Your task to perform on an android device: open a new tab in the chrome app Image 0: 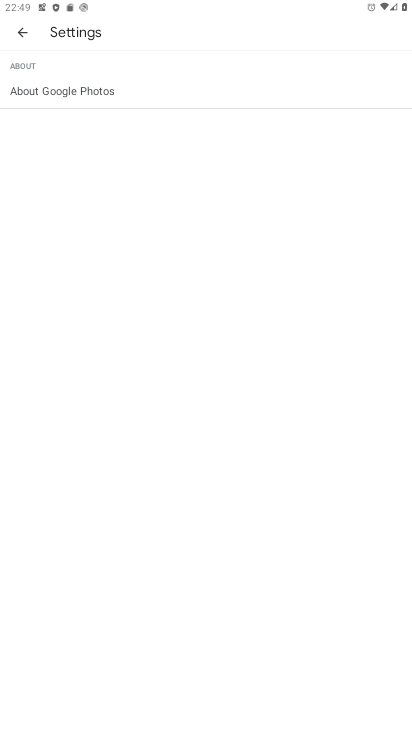
Step 0: press home button
Your task to perform on an android device: open a new tab in the chrome app Image 1: 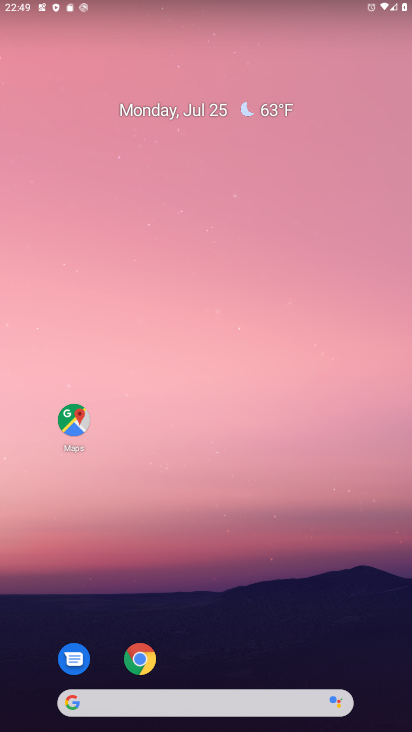
Step 1: drag from (221, 724) to (227, 113)
Your task to perform on an android device: open a new tab in the chrome app Image 2: 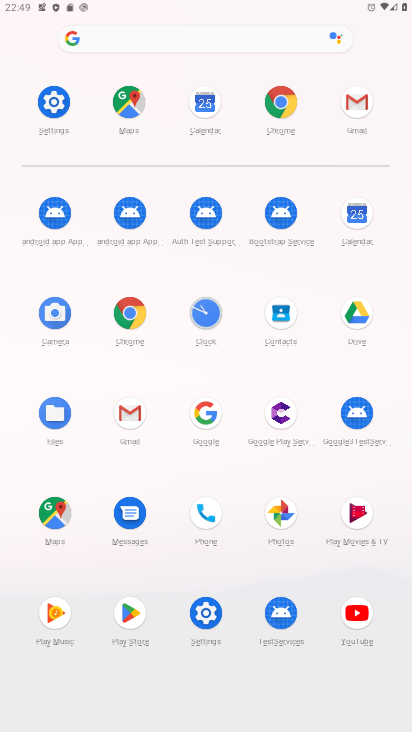
Step 2: click (131, 310)
Your task to perform on an android device: open a new tab in the chrome app Image 3: 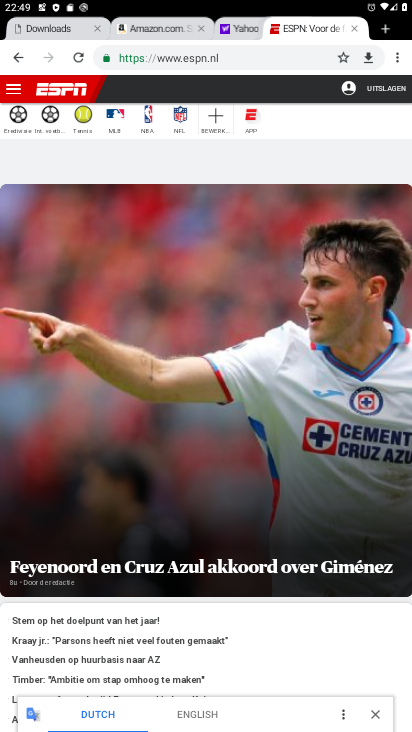
Step 3: click (397, 58)
Your task to perform on an android device: open a new tab in the chrome app Image 4: 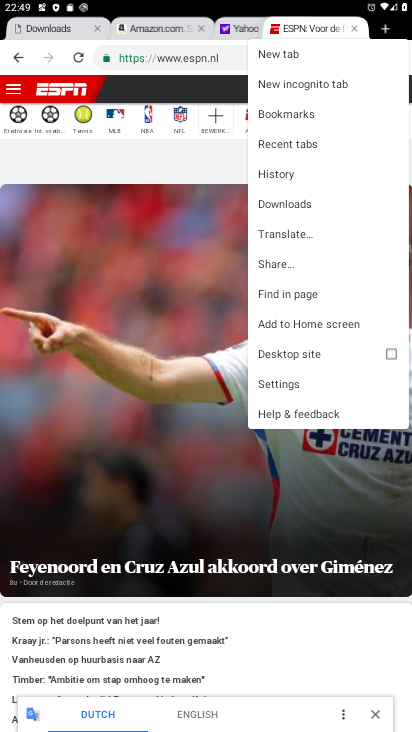
Step 4: click (276, 55)
Your task to perform on an android device: open a new tab in the chrome app Image 5: 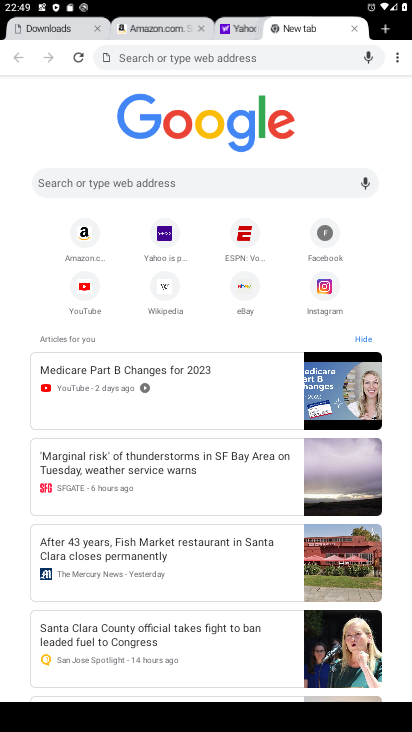
Step 5: click (396, 59)
Your task to perform on an android device: open a new tab in the chrome app Image 6: 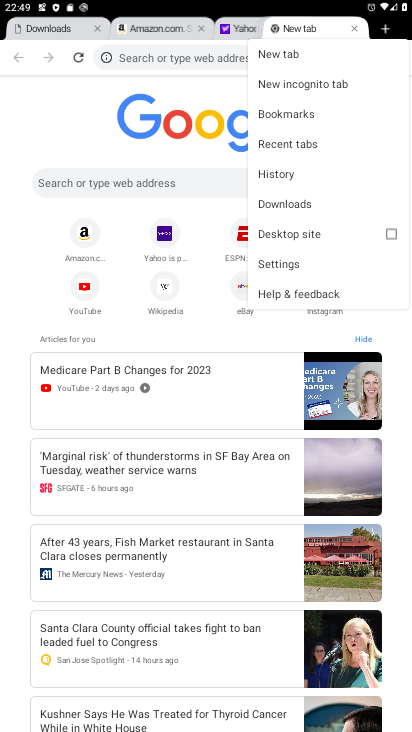
Step 6: click (286, 50)
Your task to perform on an android device: open a new tab in the chrome app Image 7: 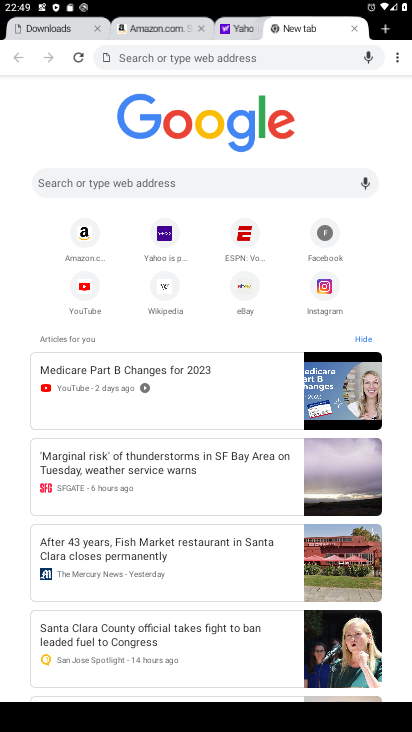
Step 7: task complete